Your task to perform on an android device: turn on the 24-hour format for clock Image 0: 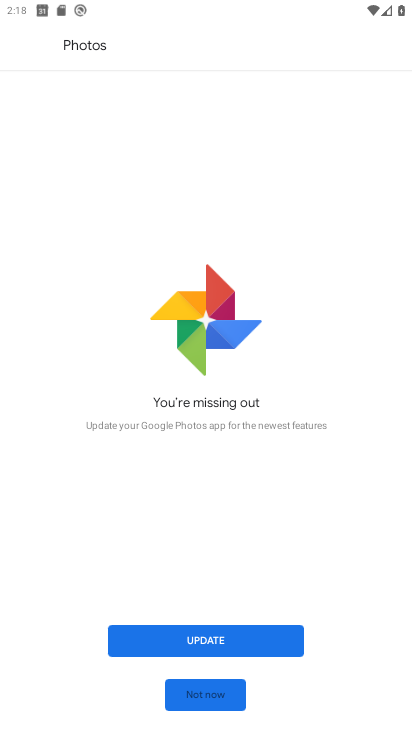
Step 0: press home button
Your task to perform on an android device: turn on the 24-hour format for clock Image 1: 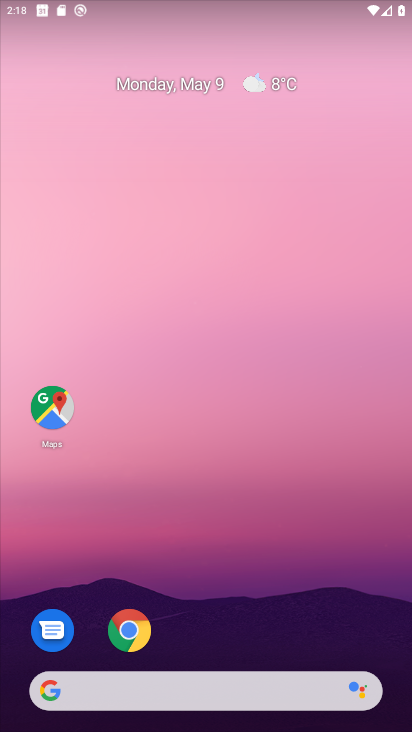
Step 1: drag from (250, 635) to (294, 47)
Your task to perform on an android device: turn on the 24-hour format for clock Image 2: 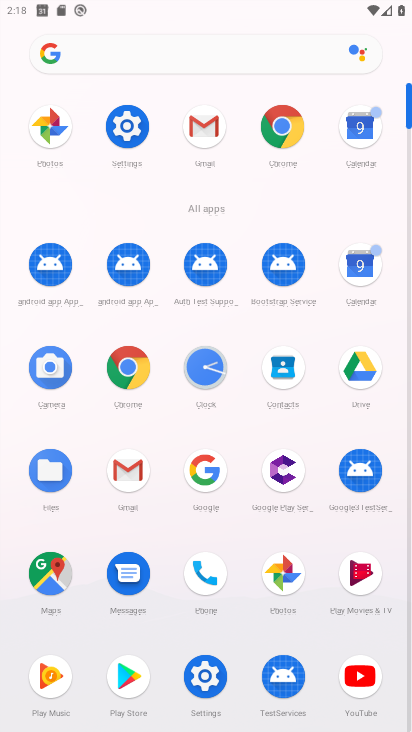
Step 2: click (199, 672)
Your task to perform on an android device: turn on the 24-hour format for clock Image 3: 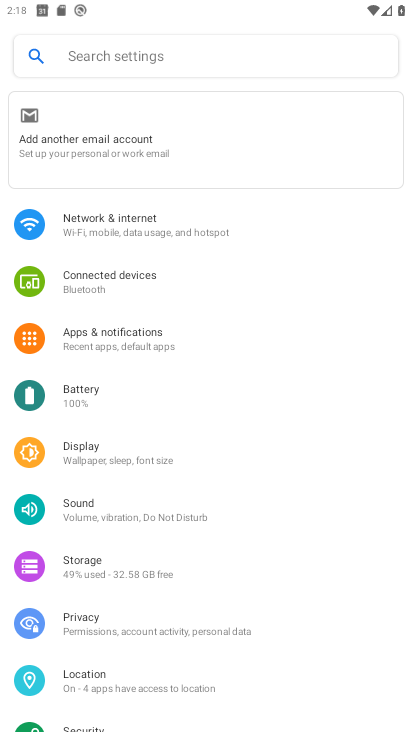
Step 3: drag from (201, 609) to (161, 306)
Your task to perform on an android device: turn on the 24-hour format for clock Image 4: 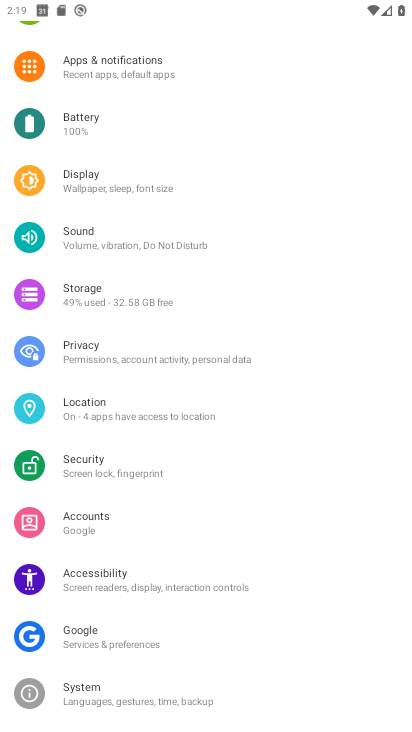
Step 4: click (123, 696)
Your task to perform on an android device: turn on the 24-hour format for clock Image 5: 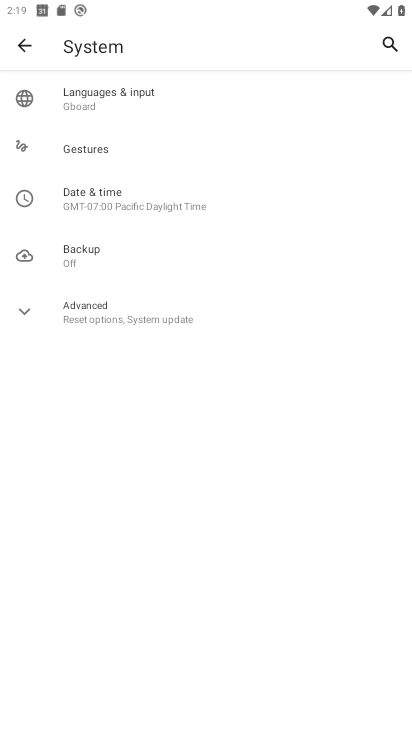
Step 5: click (136, 214)
Your task to perform on an android device: turn on the 24-hour format for clock Image 6: 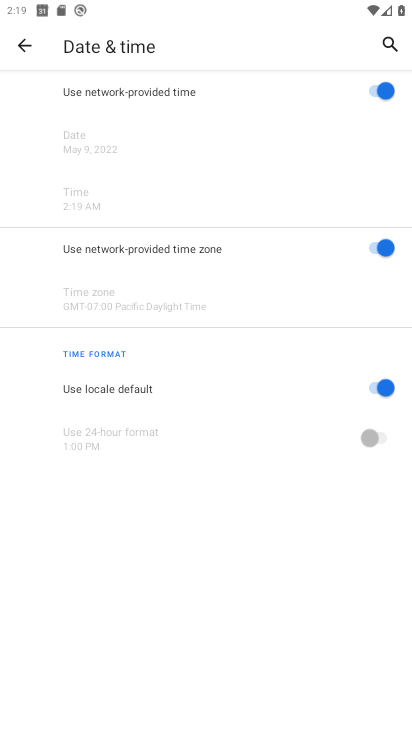
Step 6: click (372, 380)
Your task to perform on an android device: turn on the 24-hour format for clock Image 7: 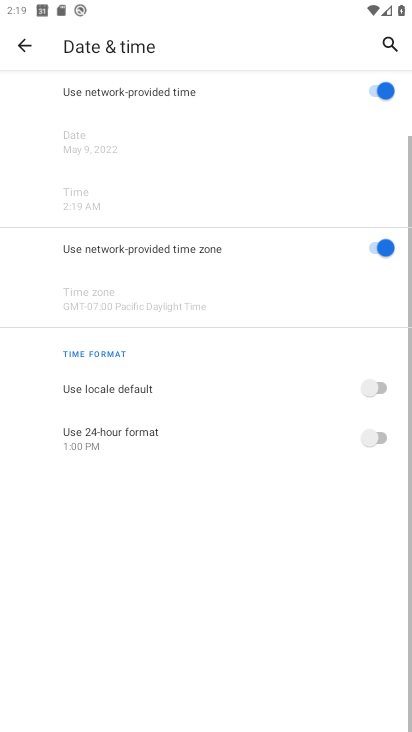
Step 7: click (395, 433)
Your task to perform on an android device: turn on the 24-hour format for clock Image 8: 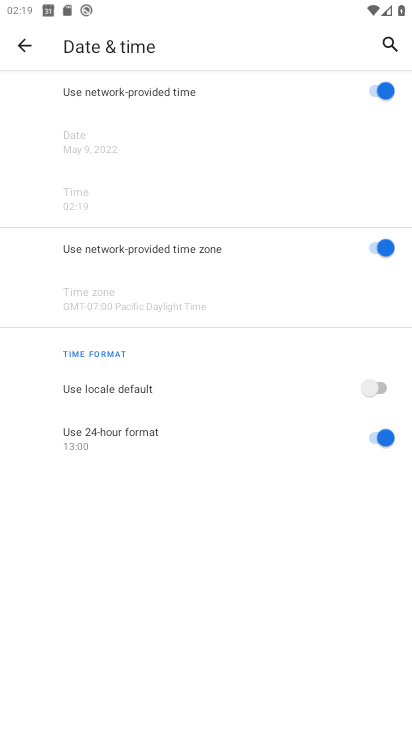
Step 8: task complete